Your task to perform on an android device: Open Google Chrome Image 0: 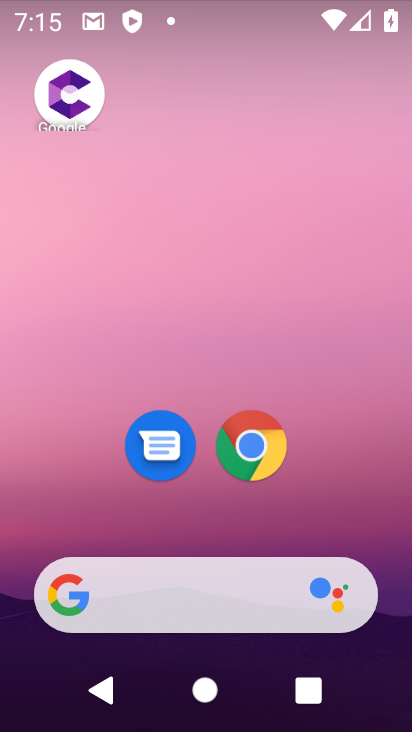
Step 0: click (254, 447)
Your task to perform on an android device: Open Google Chrome Image 1: 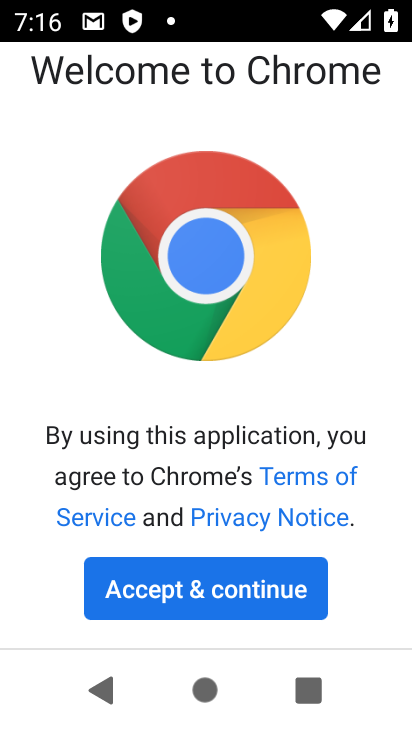
Step 1: click (195, 590)
Your task to perform on an android device: Open Google Chrome Image 2: 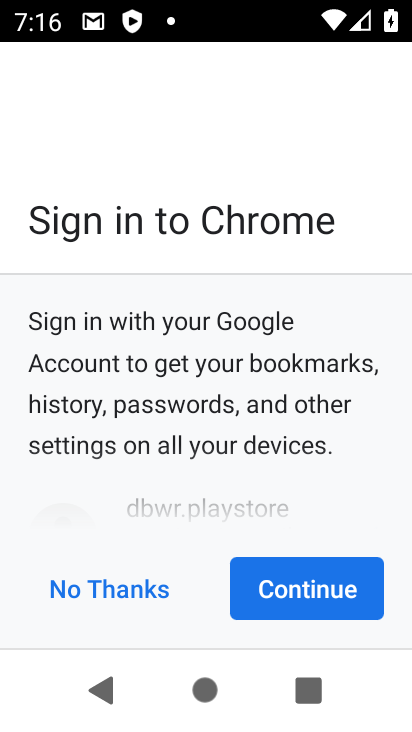
Step 2: click (289, 593)
Your task to perform on an android device: Open Google Chrome Image 3: 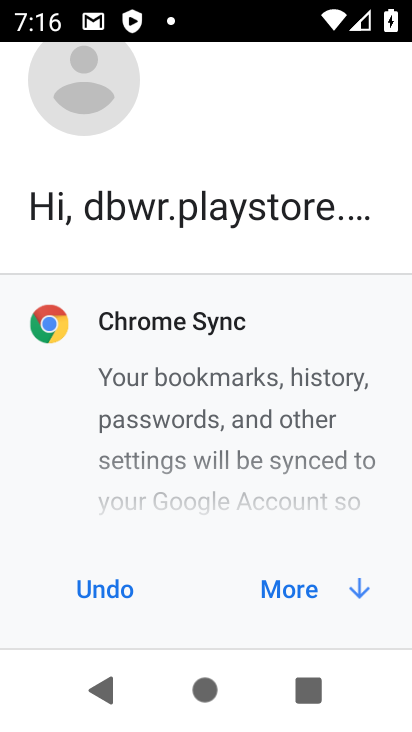
Step 3: click (358, 586)
Your task to perform on an android device: Open Google Chrome Image 4: 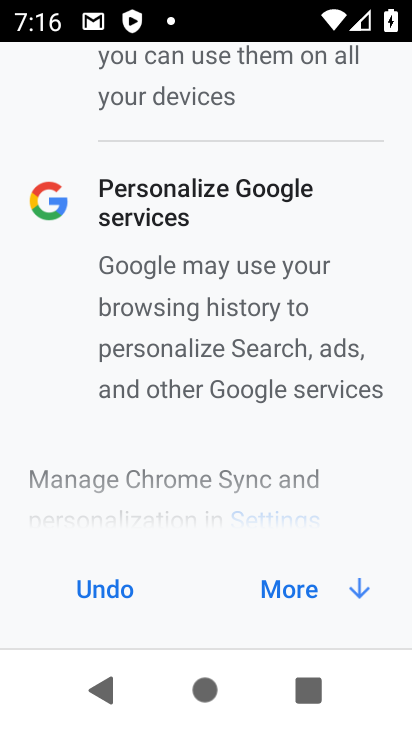
Step 4: click (324, 595)
Your task to perform on an android device: Open Google Chrome Image 5: 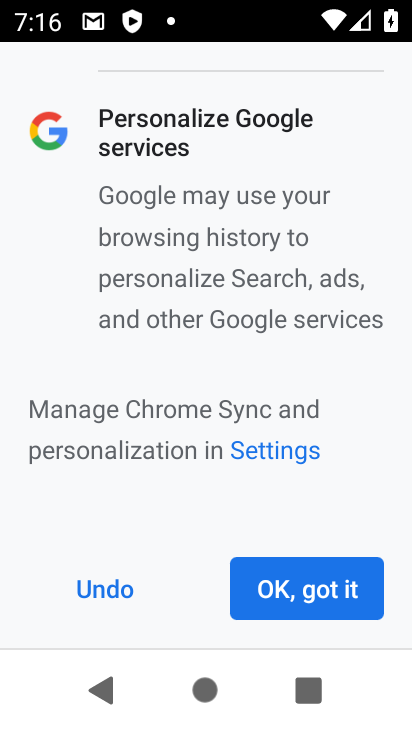
Step 5: click (324, 595)
Your task to perform on an android device: Open Google Chrome Image 6: 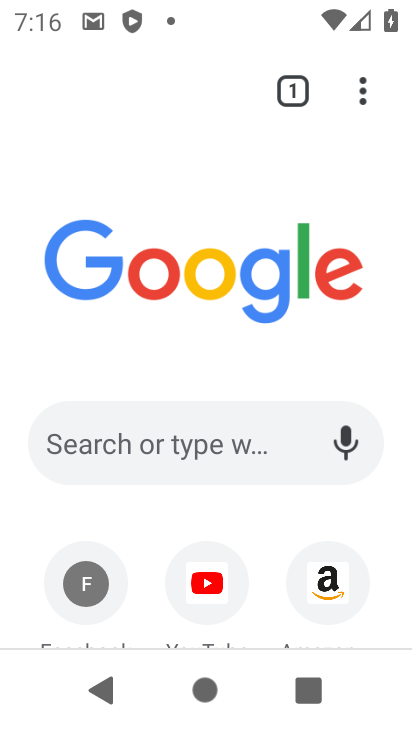
Step 6: click (361, 84)
Your task to perform on an android device: Open Google Chrome Image 7: 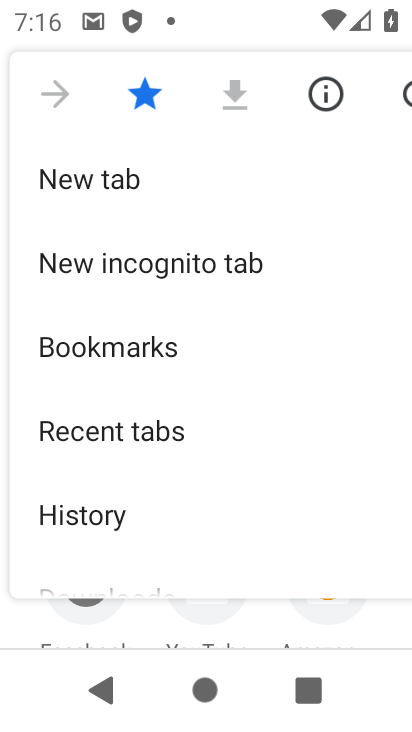
Step 7: task complete